Your task to perform on an android device: Open accessibility settings Image 0: 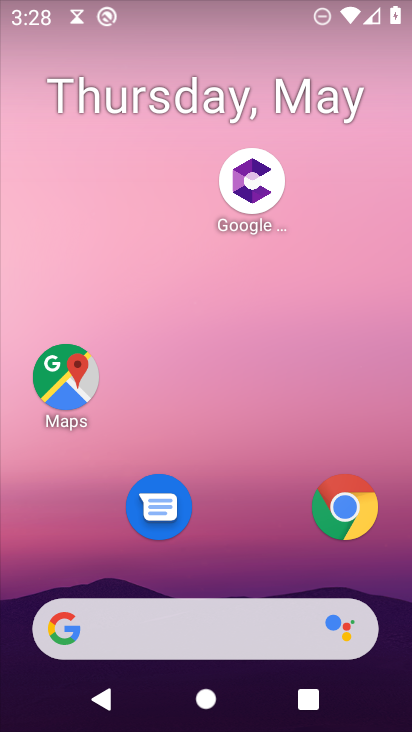
Step 0: press home button
Your task to perform on an android device: Open accessibility settings Image 1: 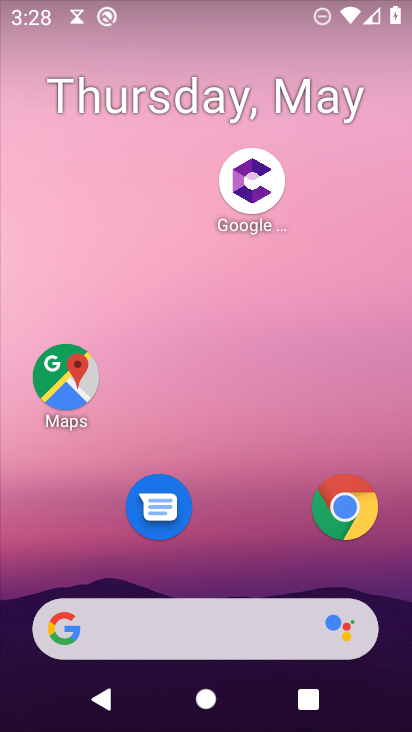
Step 1: drag from (265, 549) to (218, 1)
Your task to perform on an android device: Open accessibility settings Image 2: 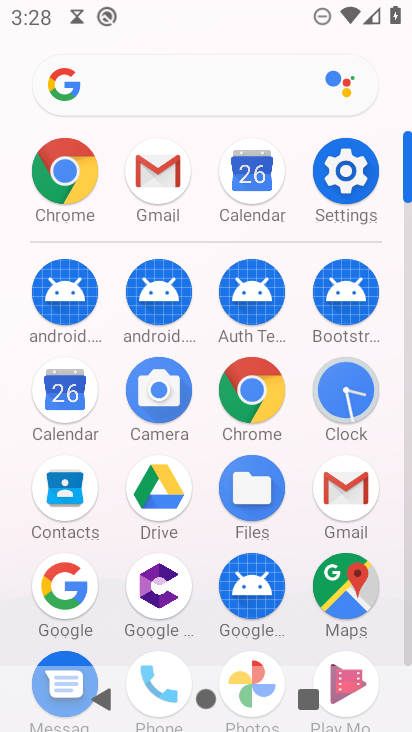
Step 2: click (350, 167)
Your task to perform on an android device: Open accessibility settings Image 3: 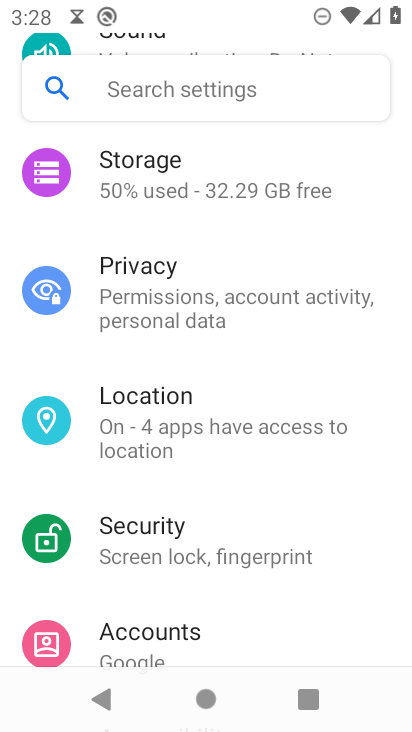
Step 3: drag from (264, 592) to (236, 76)
Your task to perform on an android device: Open accessibility settings Image 4: 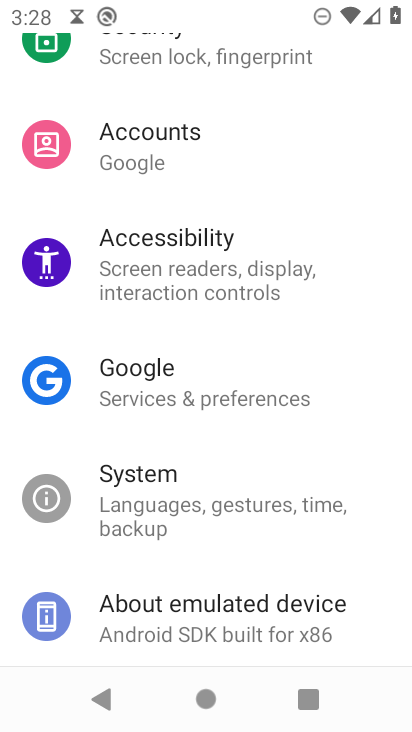
Step 4: click (169, 256)
Your task to perform on an android device: Open accessibility settings Image 5: 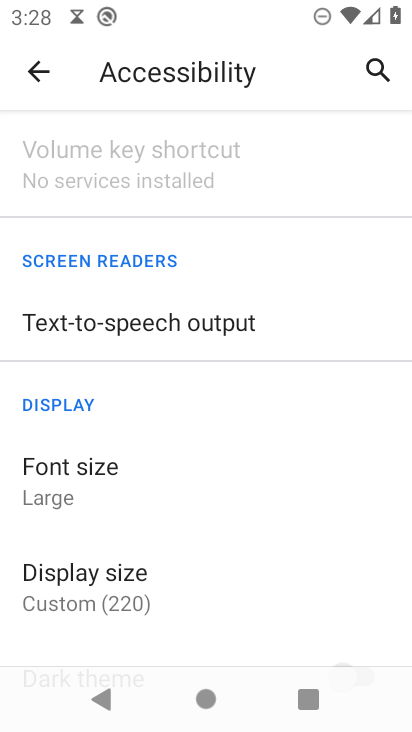
Step 5: task complete